Your task to perform on an android device: see sites visited before in the chrome app Image 0: 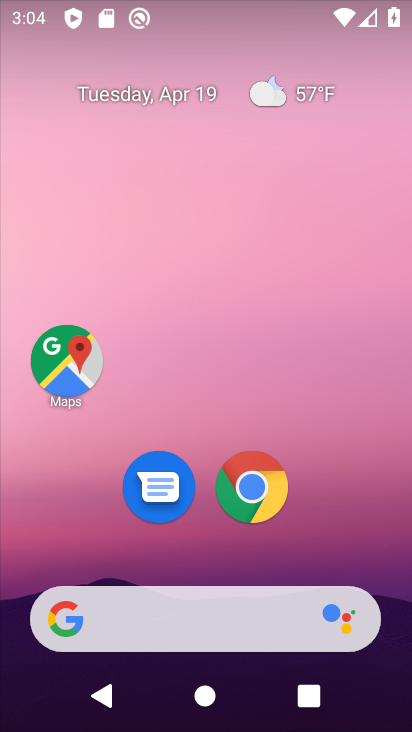
Step 0: drag from (358, 524) to (358, 201)
Your task to perform on an android device: see sites visited before in the chrome app Image 1: 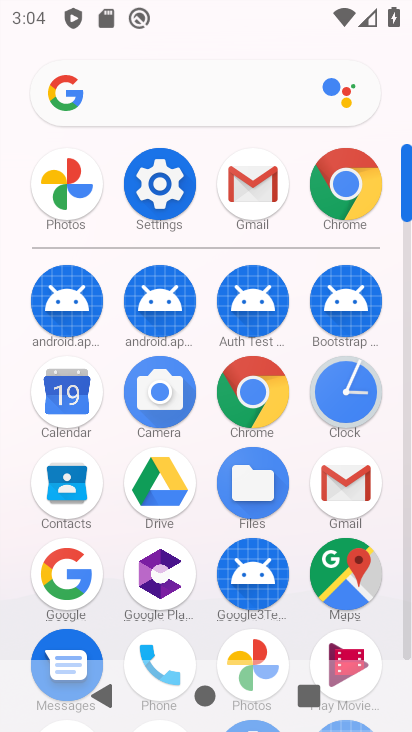
Step 1: click (243, 401)
Your task to perform on an android device: see sites visited before in the chrome app Image 2: 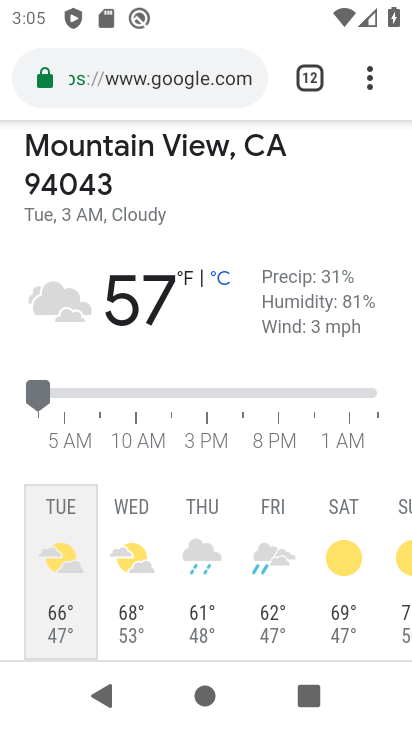
Step 2: click (369, 80)
Your task to perform on an android device: see sites visited before in the chrome app Image 3: 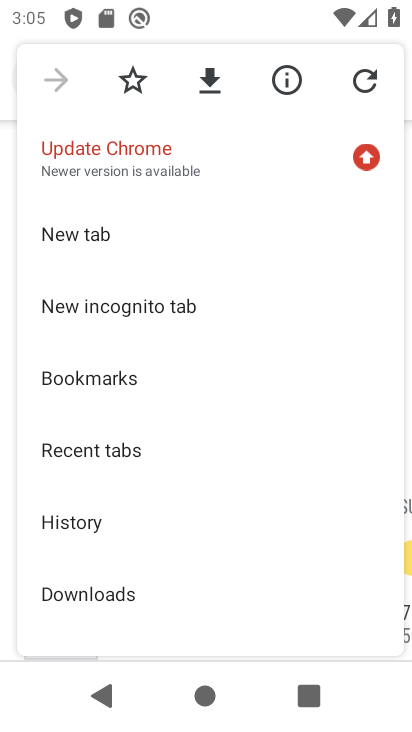
Step 3: drag from (138, 528) to (174, 264)
Your task to perform on an android device: see sites visited before in the chrome app Image 4: 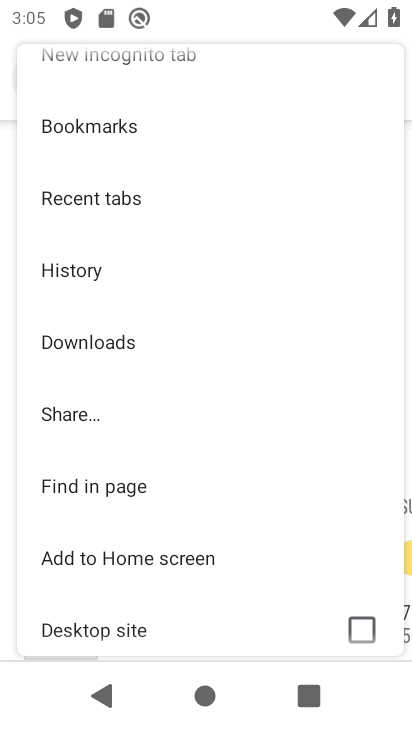
Step 4: drag from (218, 588) to (212, 267)
Your task to perform on an android device: see sites visited before in the chrome app Image 5: 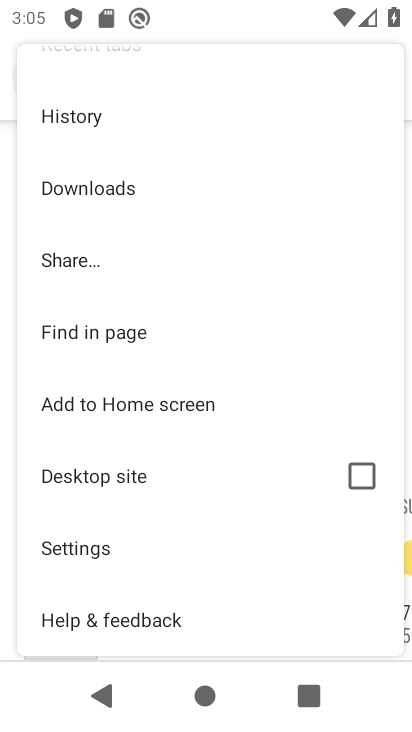
Step 5: click (85, 116)
Your task to perform on an android device: see sites visited before in the chrome app Image 6: 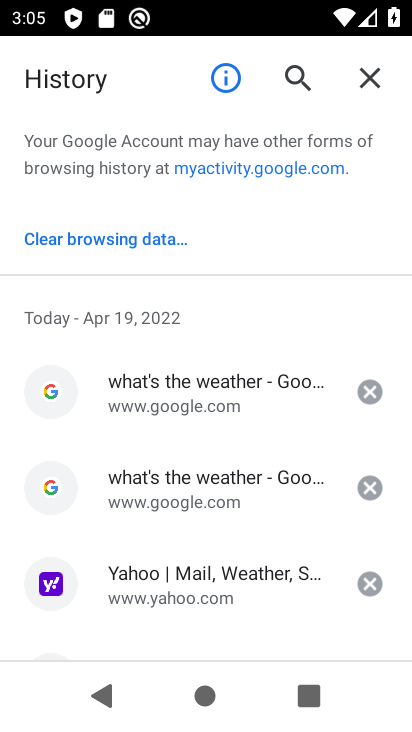
Step 6: task complete